Your task to perform on an android device: Toggle the flashlight Image 0: 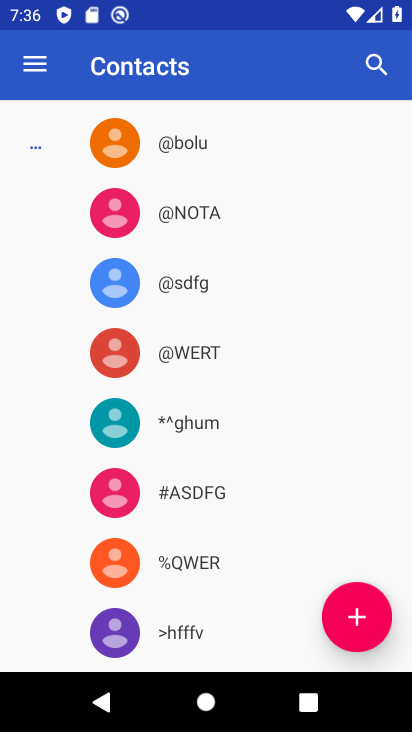
Step 0: press home button
Your task to perform on an android device: Toggle the flashlight Image 1: 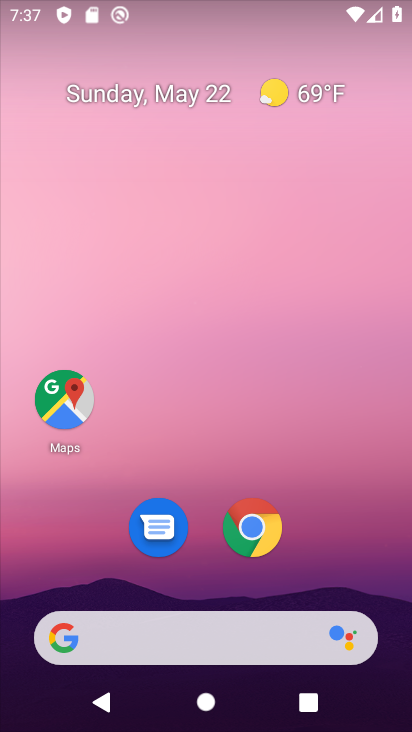
Step 1: drag from (216, 577) to (223, 5)
Your task to perform on an android device: Toggle the flashlight Image 2: 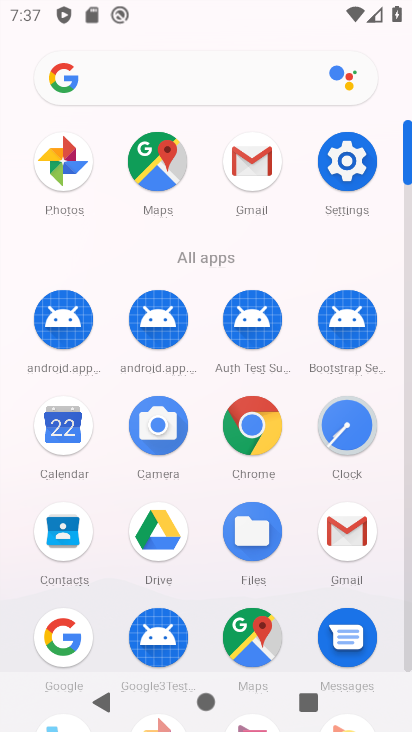
Step 2: click (343, 165)
Your task to perform on an android device: Toggle the flashlight Image 3: 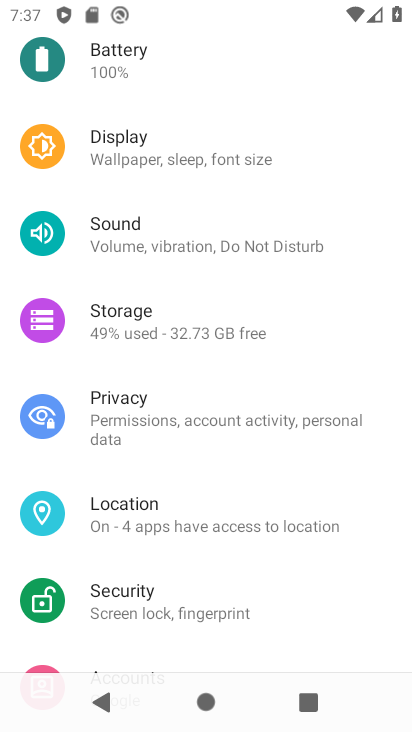
Step 3: drag from (120, 140) to (150, 626)
Your task to perform on an android device: Toggle the flashlight Image 4: 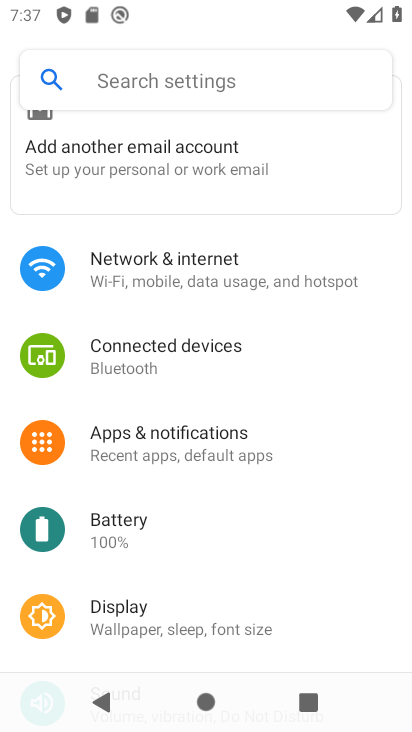
Step 4: click (124, 81)
Your task to perform on an android device: Toggle the flashlight Image 5: 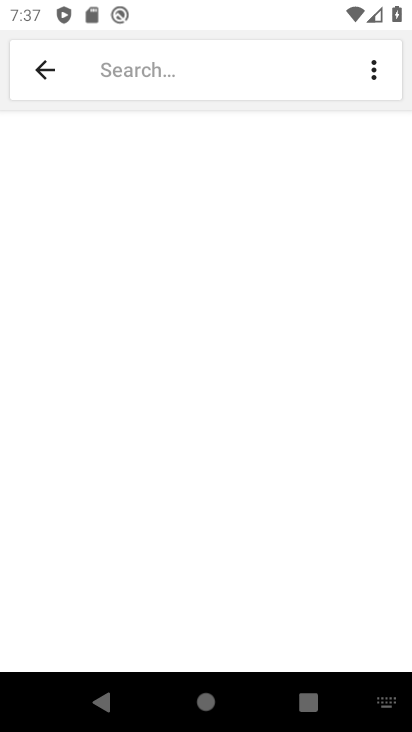
Step 5: type "flashlight"
Your task to perform on an android device: Toggle the flashlight Image 6: 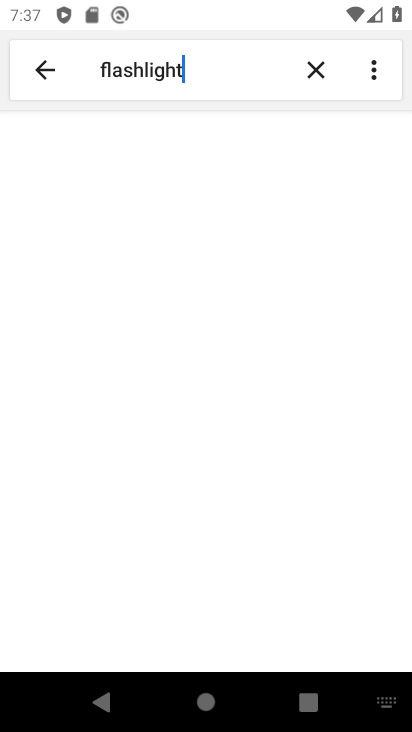
Step 6: click (210, 64)
Your task to perform on an android device: Toggle the flashlight Image 7: 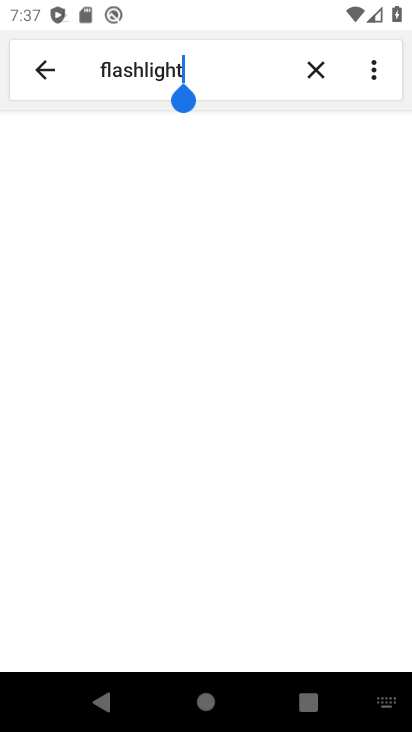
Step 7: click (206, 80)
Your task to perform on an android device: Toggle the flashlight Image 8: 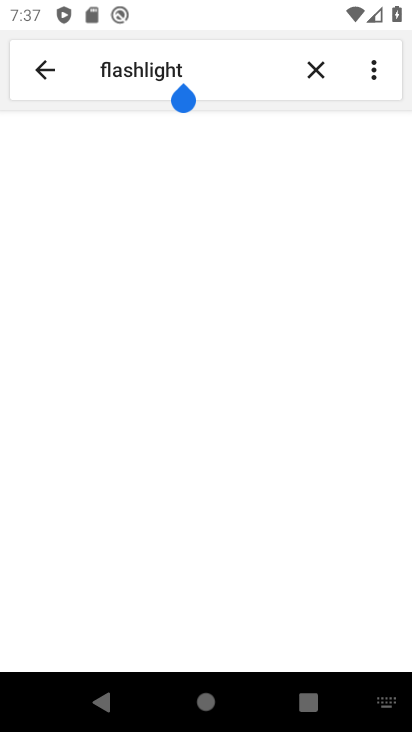
Step 8: task complete